Your task to perform on an android device: change text size in settings app Image 0: 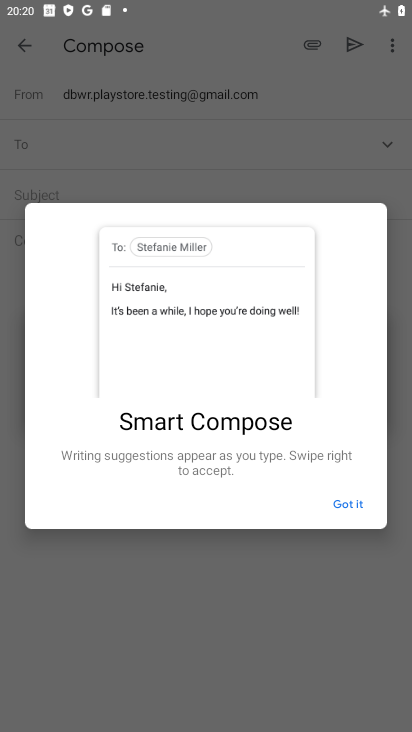
Step 0: press home button
Your task to perform on an android device: change text size in settings app Image 1: 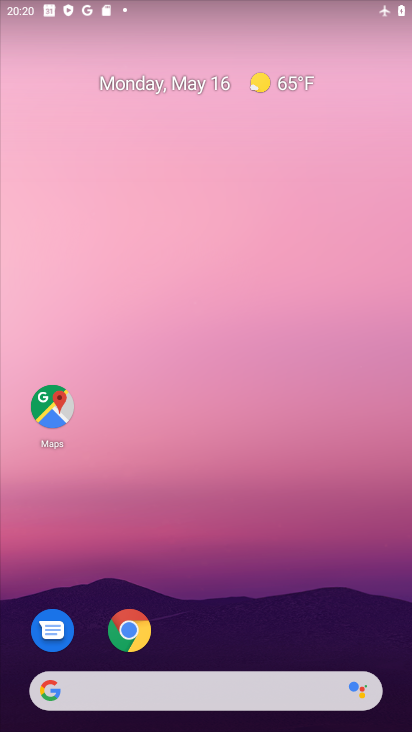
Step 1: drag from (218, 644) to (247, 116)
Your task to perform on an android device: change text size in settings app Image 2: 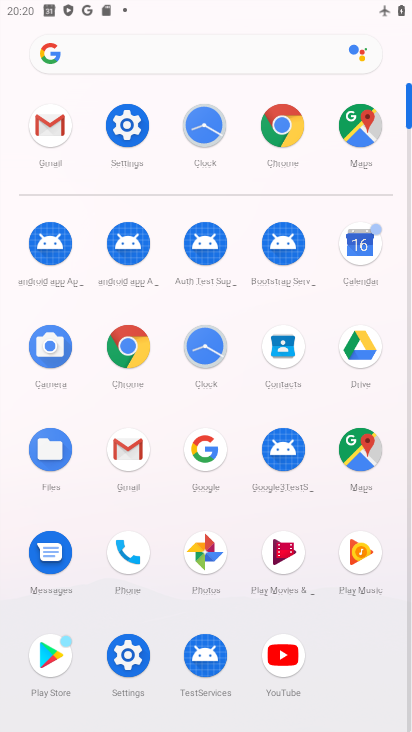
Step 2: click (143, 138)
Your task to perform on an android device: change text size in settings app Image 3: 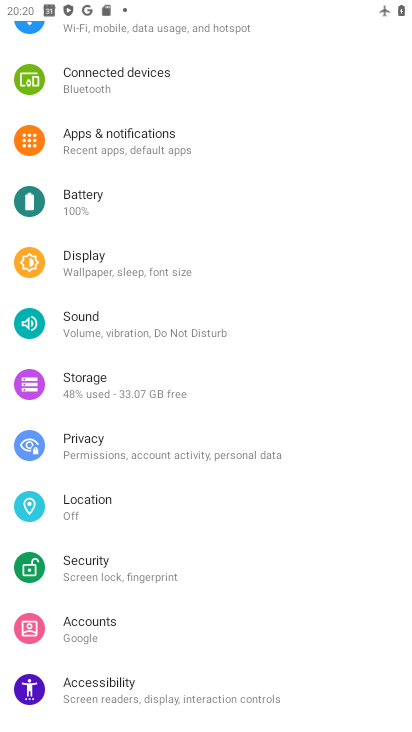
Step 3: drag from (168, 167) to (200, 466)
Your task to perform on an android device: change text size in settings app Image 4: 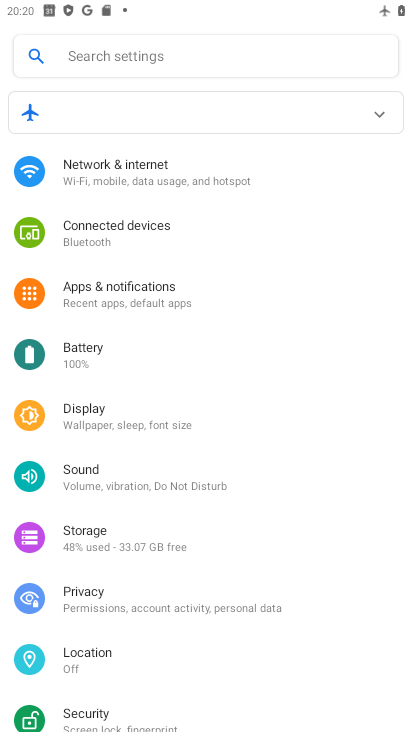
Step 4: drag from (171, 574) to (199, 382)
Your task to perform on an android device: change text size in settings app Image 5: 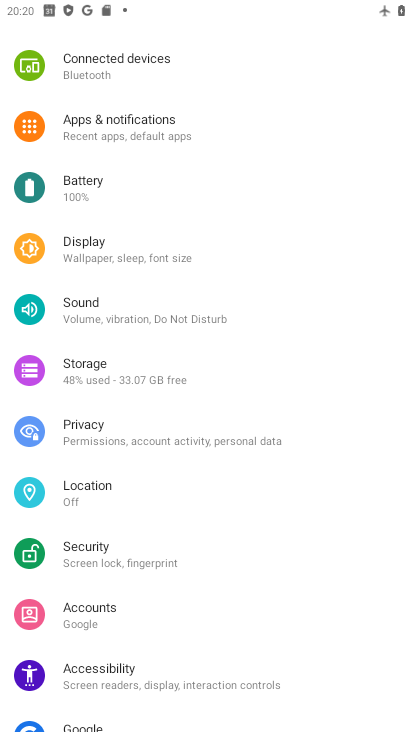
Step 5: click (126, 252)
Your task to perform on an android device: change text size in settings app Image 6: 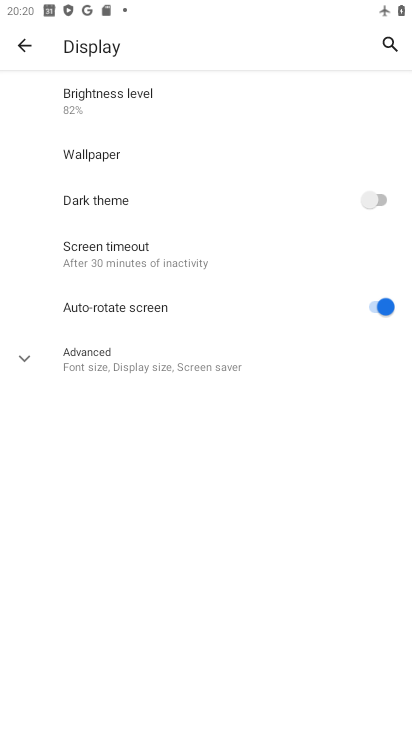
Step 6: click (164, 357)
Your task to perform on an android device: change text size in settings app Image 7: 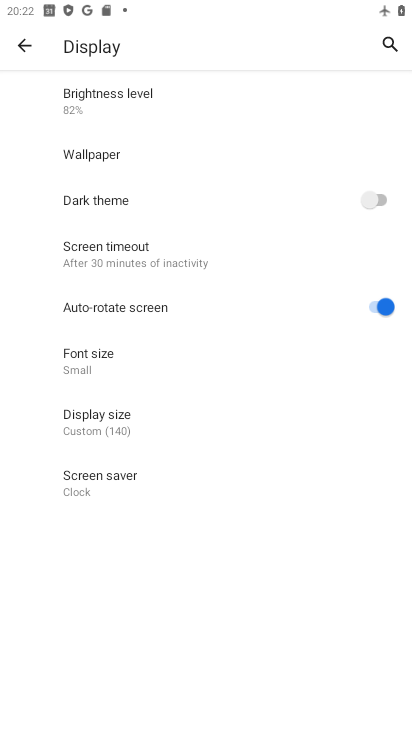
Step 7: click (135, 355)
Your task to perform on an android device: change text size in settings app Image 8: 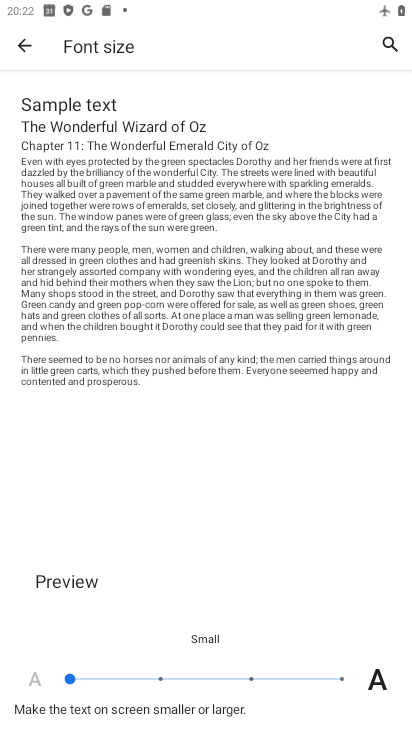
Step 8: click (156, 679)
Your task to perform on an android device: change text size in settings app Image 9: 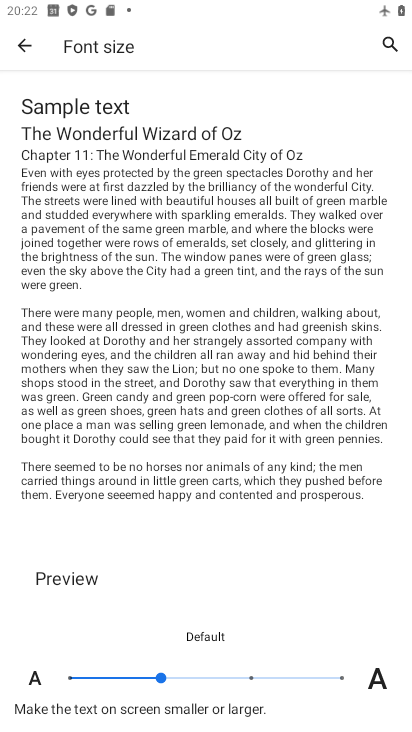
Step 9: task complete